Your task to perform on an android device: Find coffee shops on Maps Image 0: 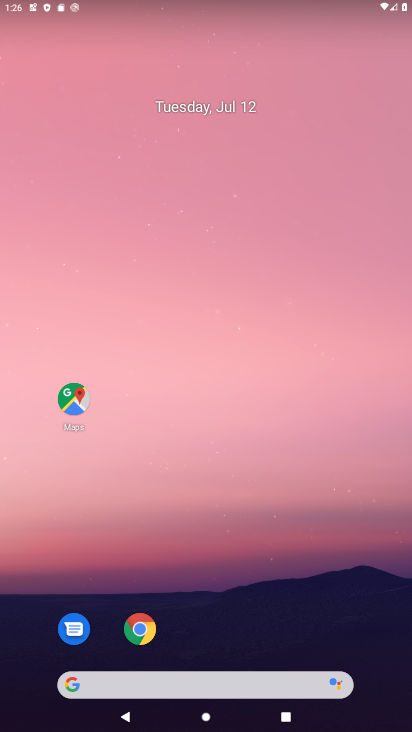
Step 0: drag from (221, 247) to (234, 14)
Your task to perform on an android device: Find coffee shops on Maps Image 1: 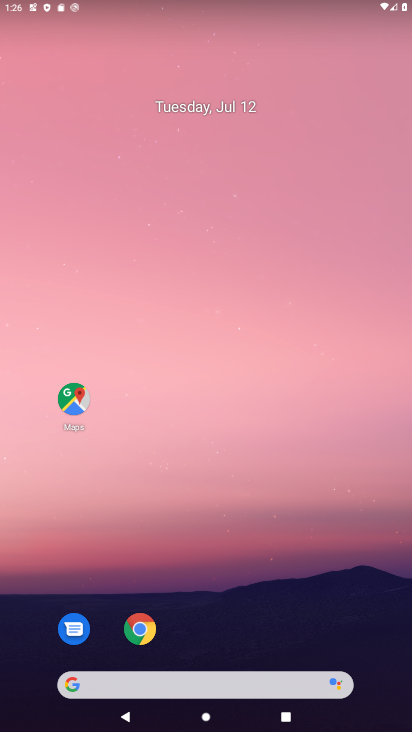
Step 1: drag from (218, 514) to (218, 12)
Your task to perform on an android device: Find coffee shops on Maps Image 2: 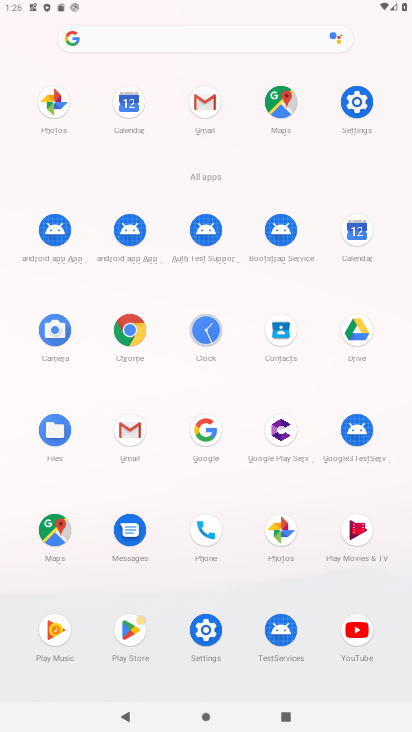
Step 2: click (279, 110)
Your task to perform on an android device: Find coffee shops on Maps Image 3: 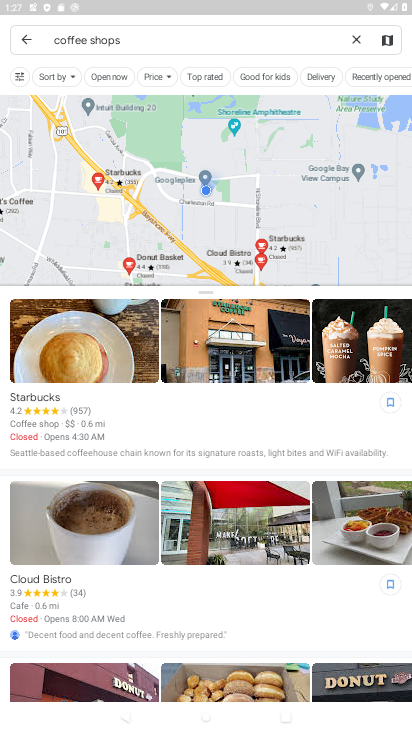
Step 3: task complete